Your task to perform on an android device: Open Youtube and go to the subscriptions tab Image 0: 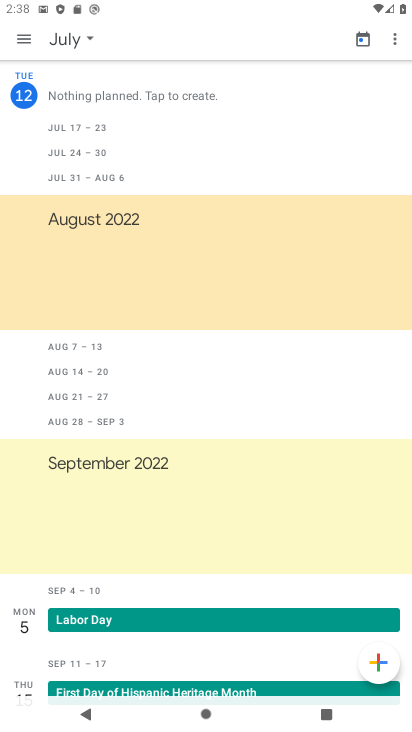
Step 0: press home button
Your task to perform on an android device: Open Youtube and go to the subscriptions tab Image 1: 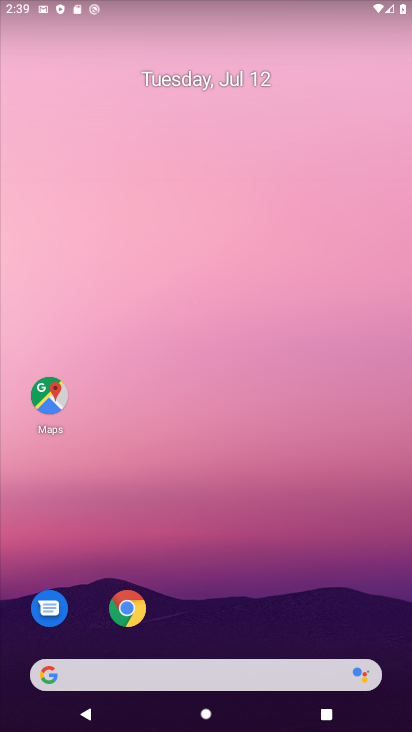
Step 1: drag from (396, 588) to (339, 164)
Your task to perform on an android device: Open Youtube and go to the subscriptions tab Image 2: 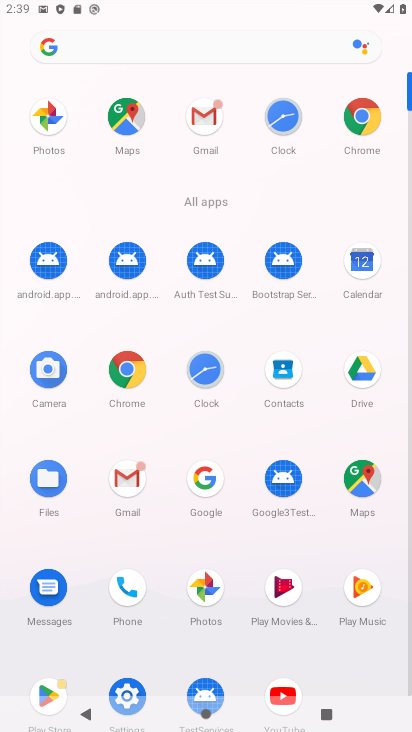
Step 2: click (284, 689)
Your task to perform on an android device: Open Youtube and go to the subscriptions tab Image 3: 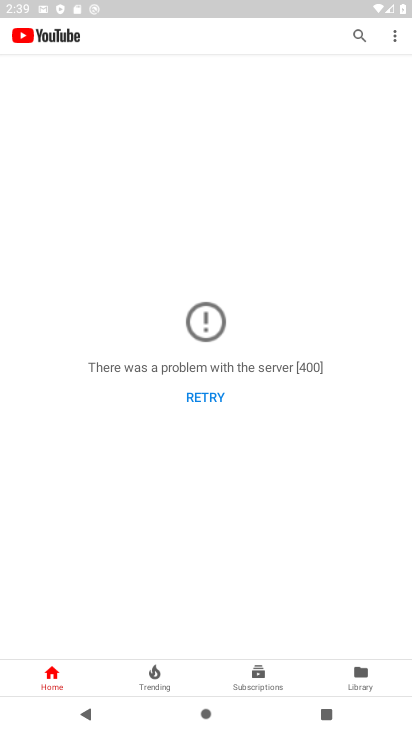
Step 3: click (264, 679)
Your task to perform on an android device: Open Youtube and go to the subscriptions tab Image 4: 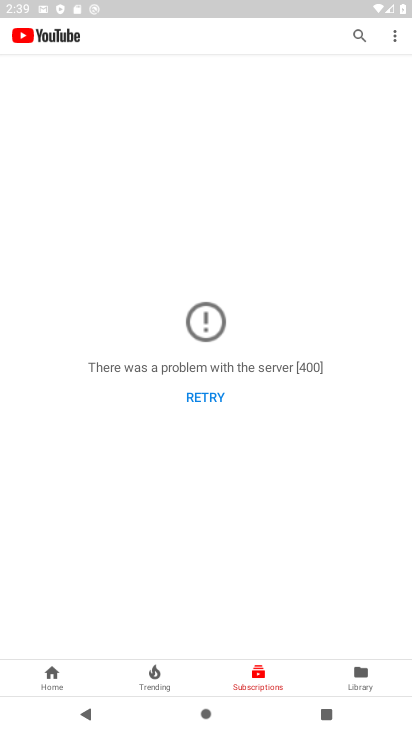
Step 4: task complete